Your task to perform on an android device: change the clock style Image 0: 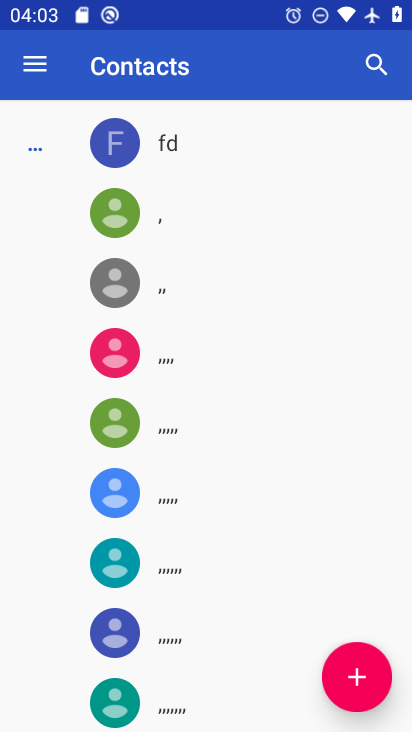
Step 0: press home button
Your task to perform on an android device: change the clock style Image 1: 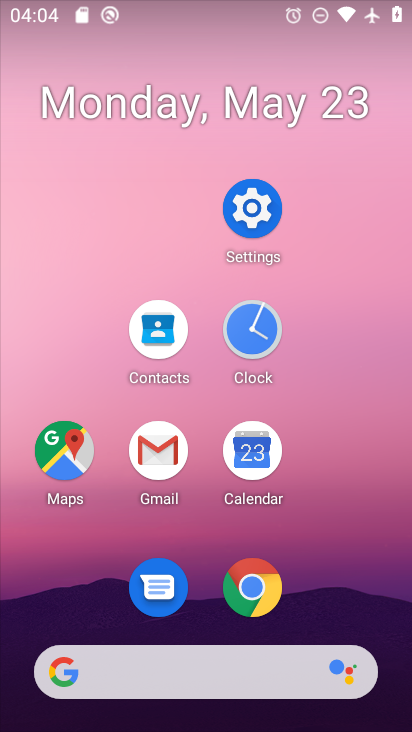
Step 1: click (270, 328)
Your task to perform on an android device: change the clock style Image 2: 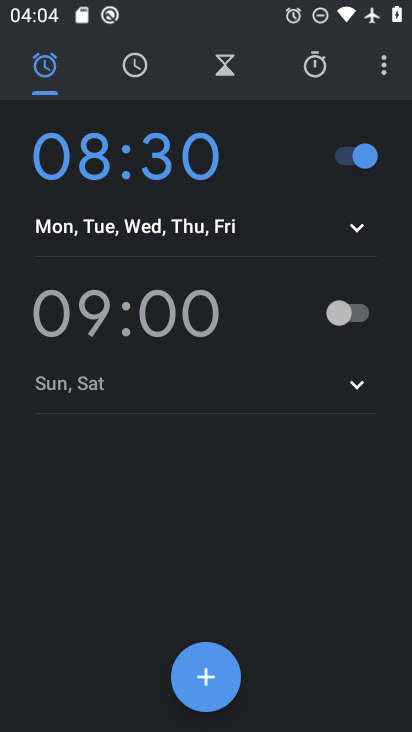
Step 2: click (390, 63)
Your task to perform on an android device: change the clock style Image 3: 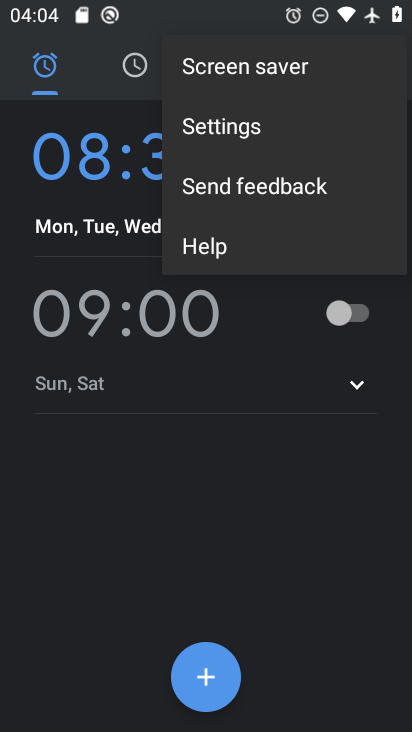
Step 3: click (307, 128)
Your task to perform on an android device: change the clock style Image 4: 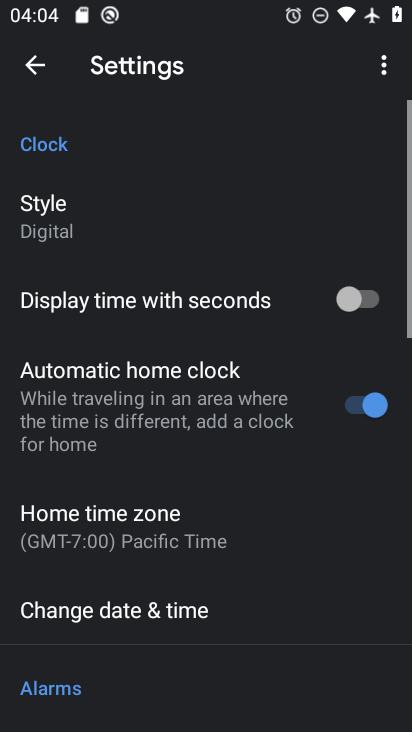
Step 4: click (165, 235)
Your task to perform on an android device: change the clock style Image 5: 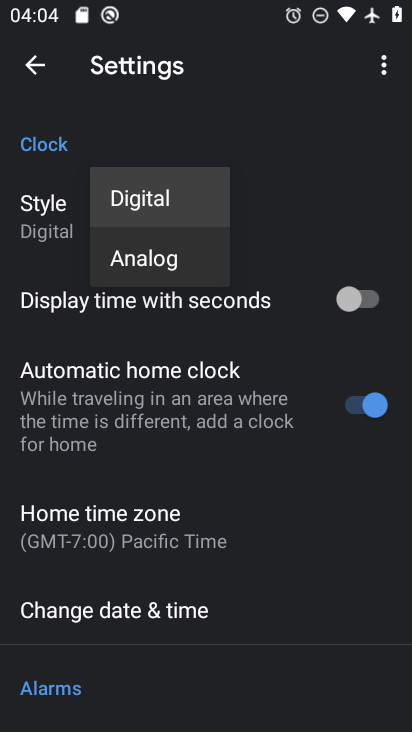
Step 5: click (177, 252)
Your task to perform on an android device: change the clock style Image 6: 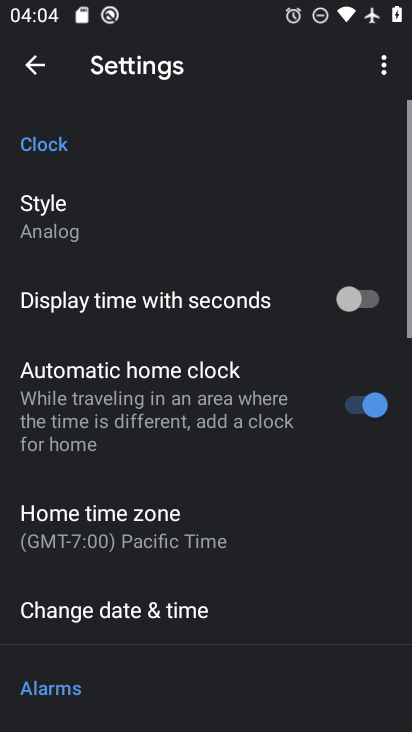
Step 6: task complete